Your task to perform on an android device: Open Youtube and go to "Your channel" Image 0: 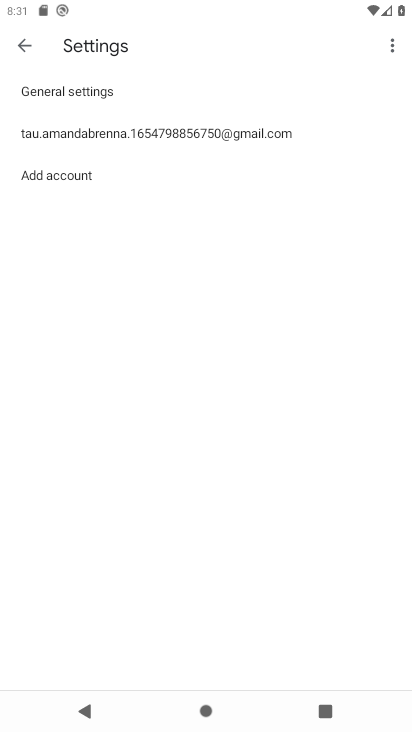
Step 0: press home button
Your task to perform on an android device: Open Youtube and go to "Your channel" Image 1: 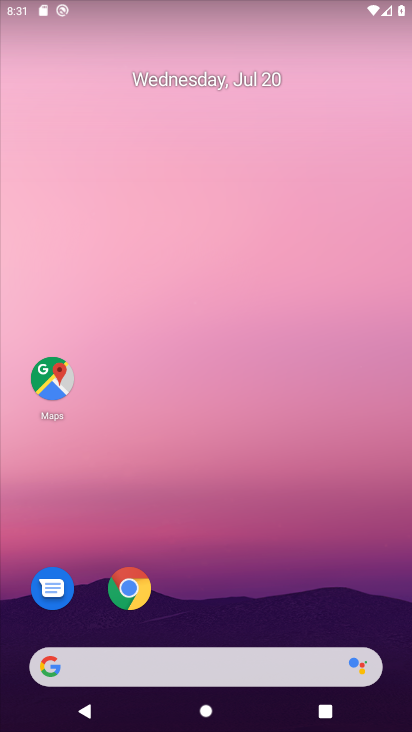
Step 1: drag from (206, 620) to (193, 71)
Your task to perform on an android device: Open Youtube and go to "Your channel" Image 2: 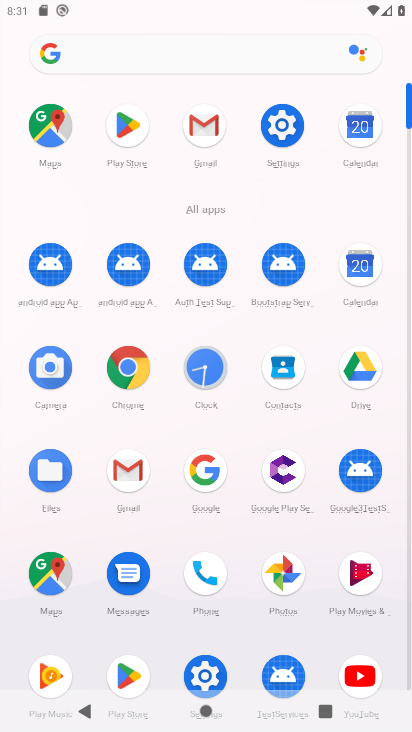
Step 2: click (346, 670)
Your task to perform on an android device: Open Youtube and go to "Your channel" Image 3: 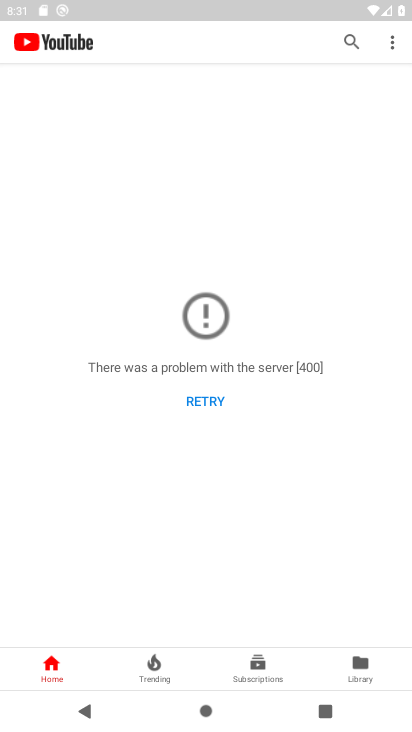
Step 3: click (355, 665)
Your task to perform on an android device: Open Youtube and go to "Your channel" Image 4: 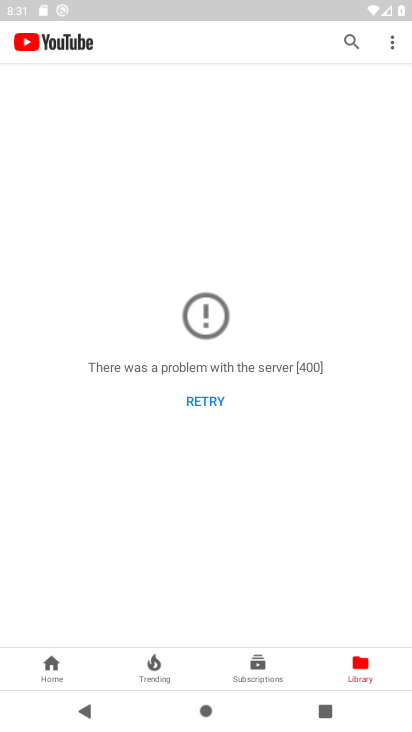
Step 4: click (389, 45)
Your task to perform on an android device: Open Youtube and go to "Your channel" Image 5: 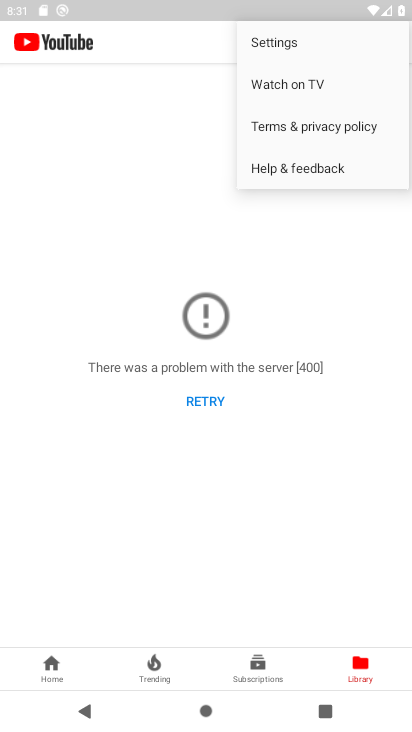
Step 5: click (296, 41)
Your task to perform on an android device: Open Youtube and go to "Your channel" Image 6: 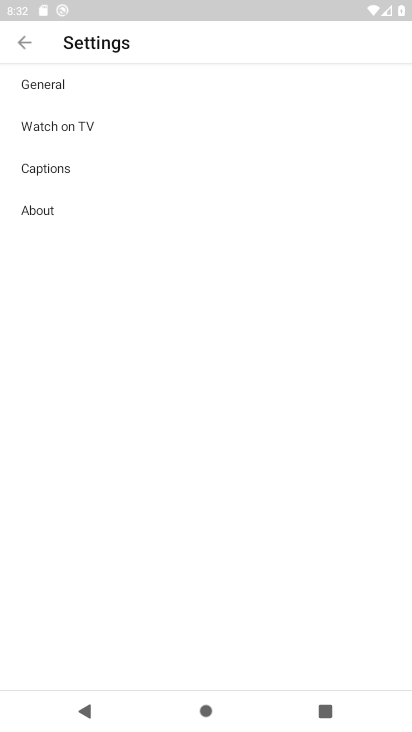
Step 6: click (16, 41)
Your task to perform on an android device: Open Youtube and go to "Your channel" Image 7: 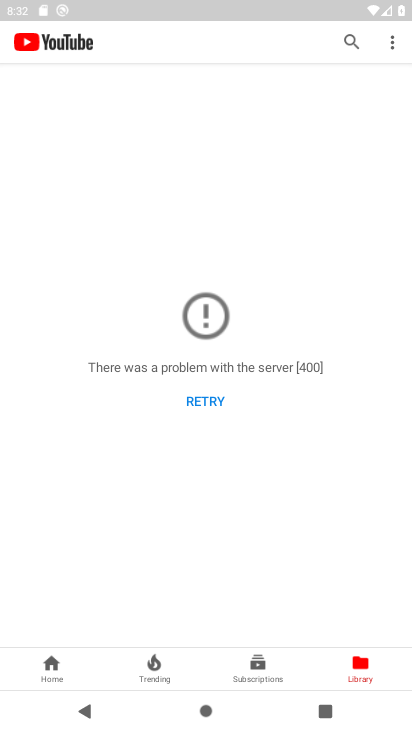
Step 7: click (27, 43)
Your task to perform on an android device: Open Youtube and go to "Your channel" Image 8: 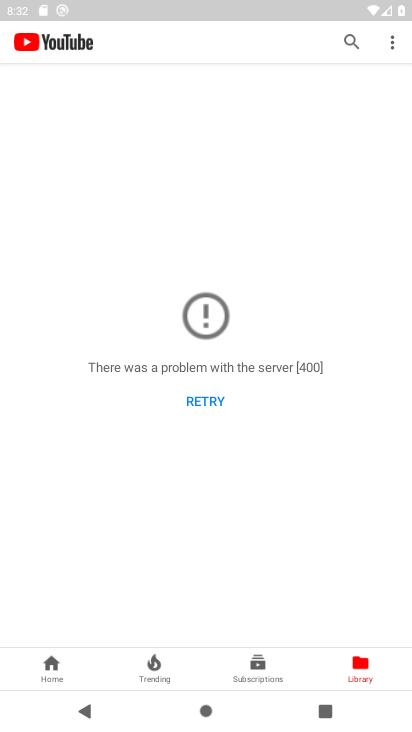
Step 8: task complete